Your task to perform on an android device: Go to wifi settings Image 0: 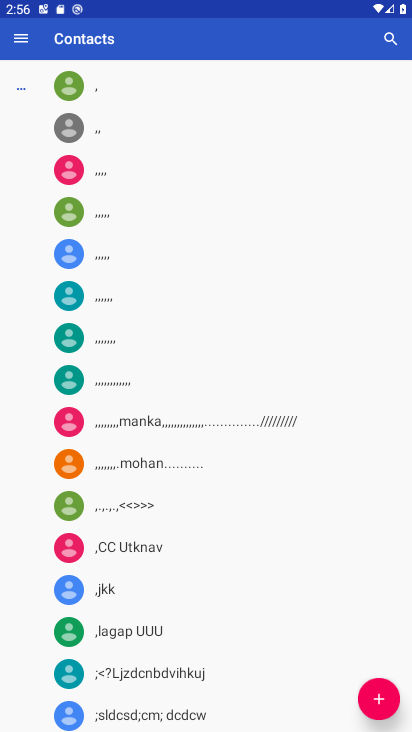
Step 0: press home button
Your task to perform on an android device: Go to wifi settings Image 1: 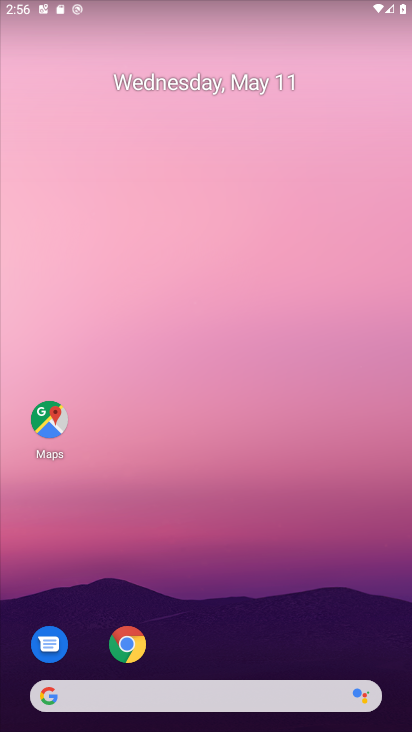
Step 1: drag from (223, 669) to (239, 79)
Your task to perform on an android device: Go to wifi settings Image 2: 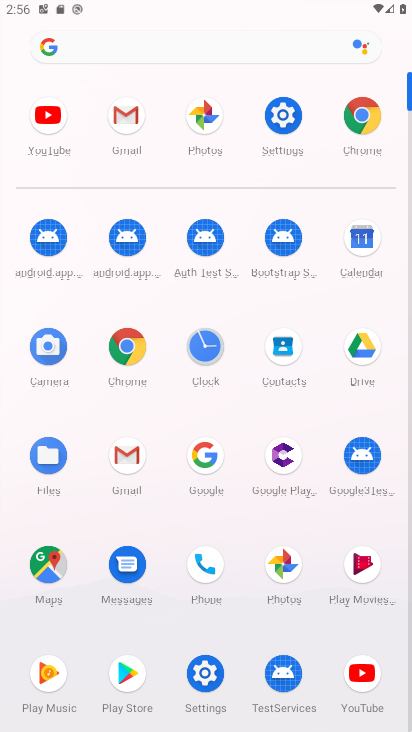
Step 2: click (281, 120)
Your task to perform on an android device: Go to wifi settings Image 3: 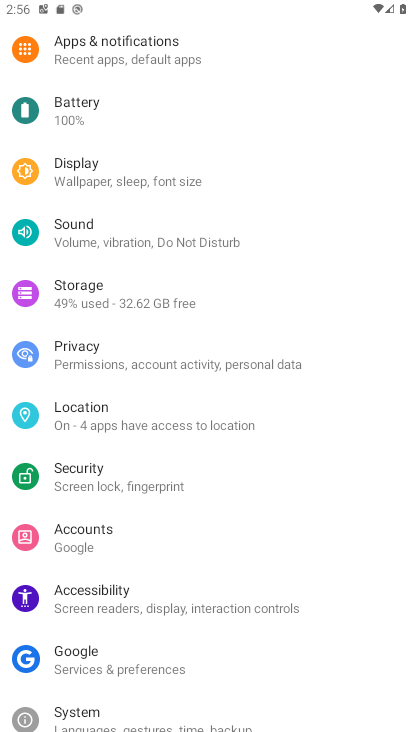
Step 3: drag from (218, 144) to (163, 633)
Your task to perform on an android device: Go to wifi settings Image 4: 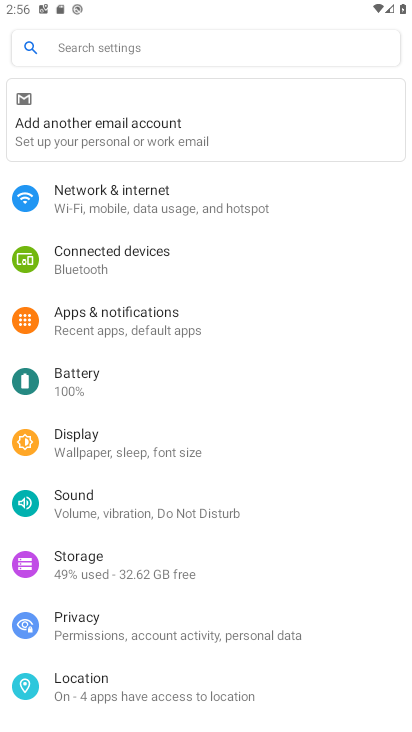
Step 4: click (142, 206)
Your task to perform on an android device: Go to wifi settings Image 5: 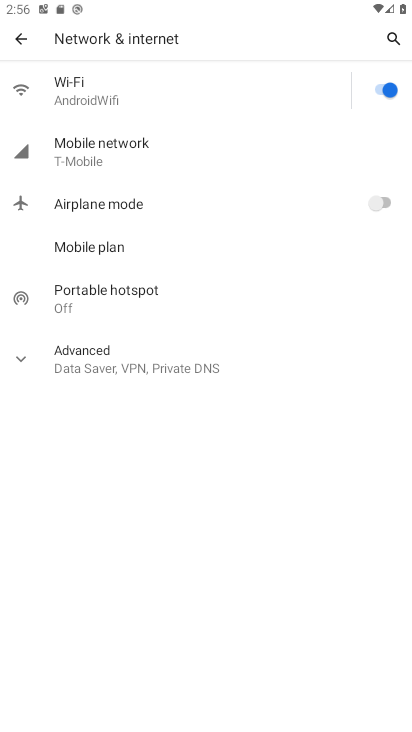
Step 5: click (118, 97)
Your task to perform on an android device: Go to wifi settings Image 6: 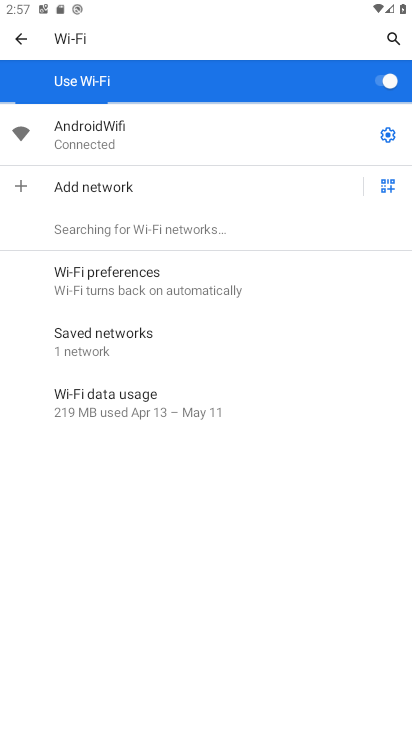
Step 6: task complete